Your task to perform on an android device: toggle improve location accuracy Image 0: 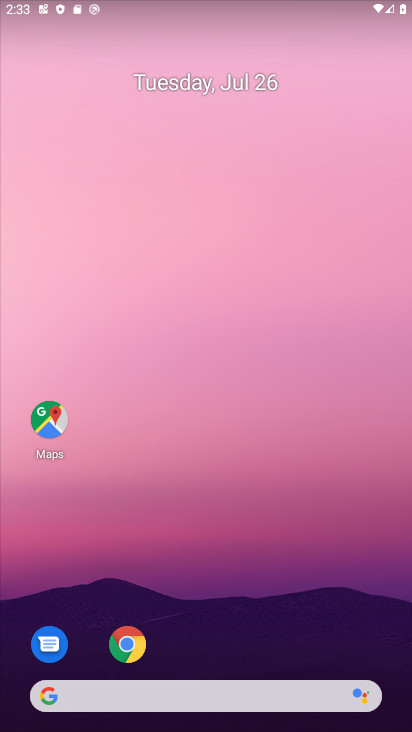
Step 0: press home button
Your task to perform on an android device: toggle improve location accuracy Image 1: 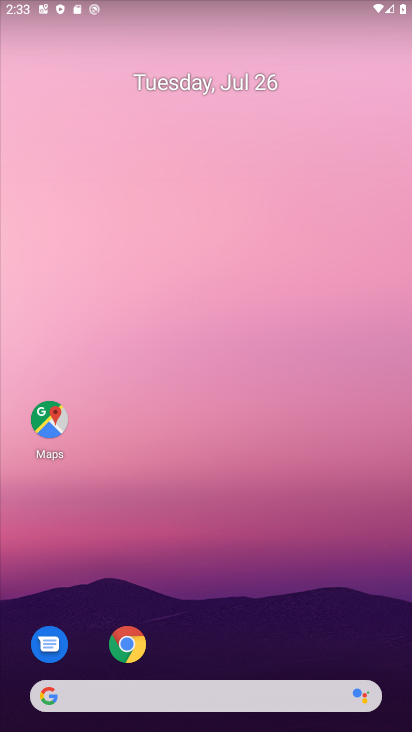
Step 1: drag from (271, 618) to (411, 57)
Your task to perform on an android device: toggle improve location accuracy Image 2: 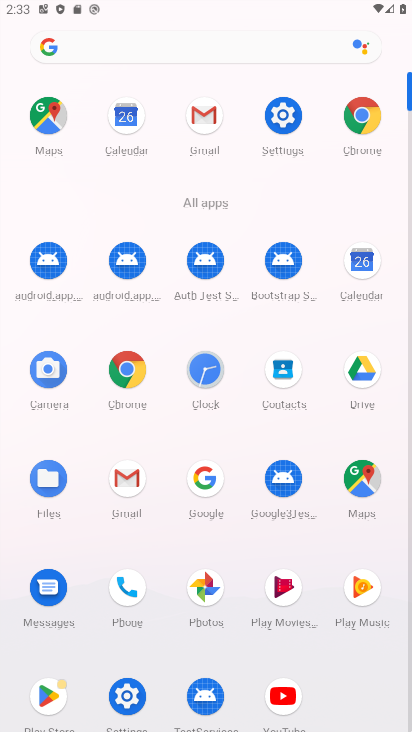
Step 2: click (288, 119)
Your task to perform on an android device: toggle improve location accuracy Image 3: 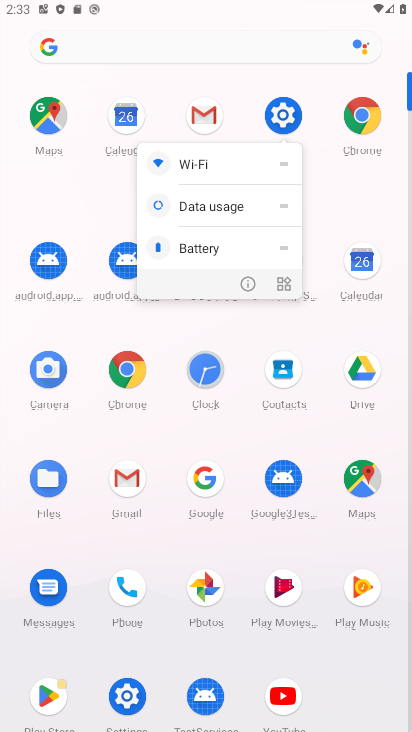
Step 3: click (285, 119)
Your task to perform on an android device: toggle improve location accuracy Image 4: 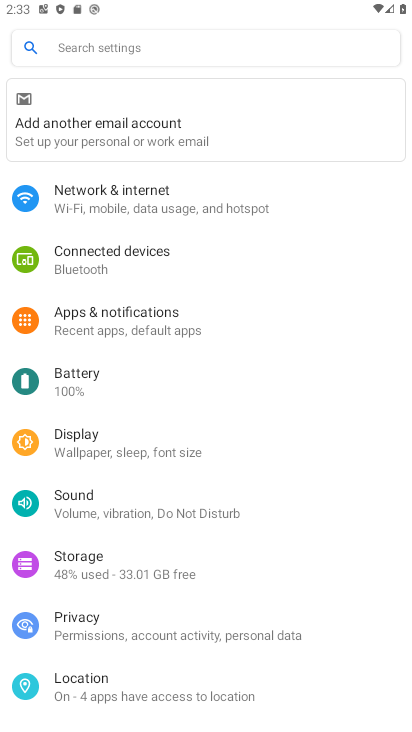
Step 4: click (98, 677)
Your task to perform on an android device: toggle improve location accuracy Image 5: 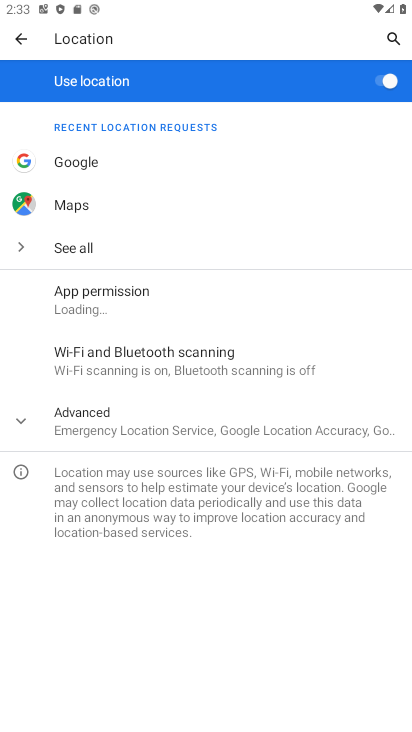
Step 5: click (27, 427)
Your task to perform on an android device: toggle improve location accuracy Image 6: 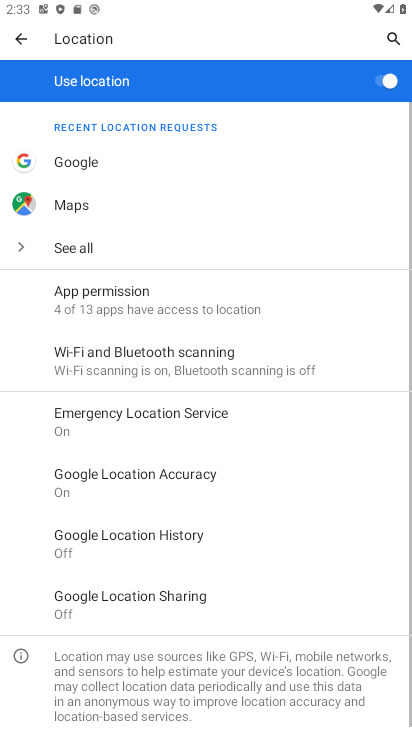
Step 6: click (181, 477)
Your task to perform on an android device: toggle improve location accuracy Image 7: 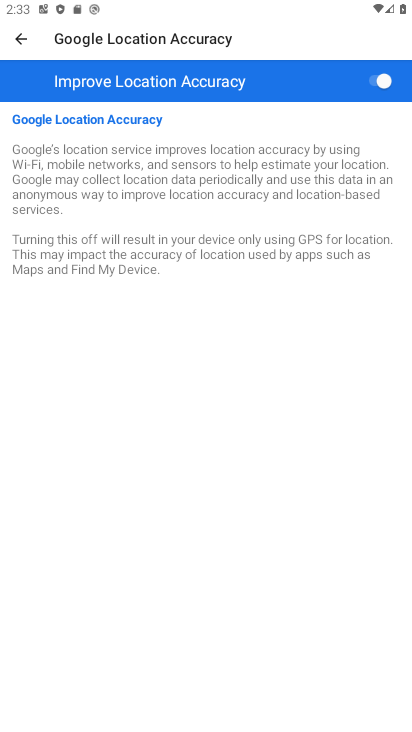
Step 7: click (378, 80)
Your task to perform on an android device: toggle improve location accuracy Image 8: 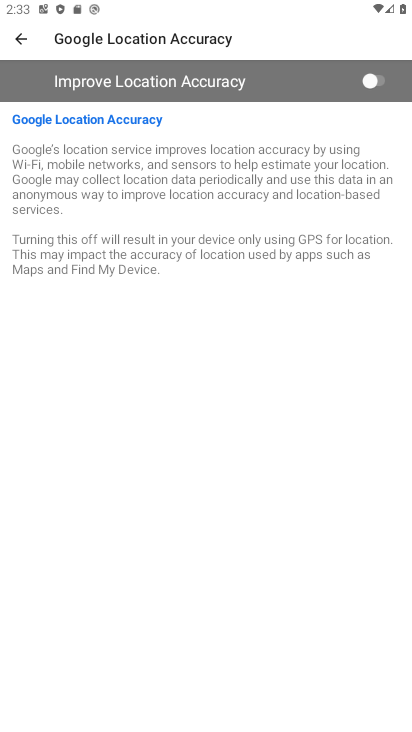
Step 8: task complete